Your task to perform on an android device: What is the recent news? Image 0: 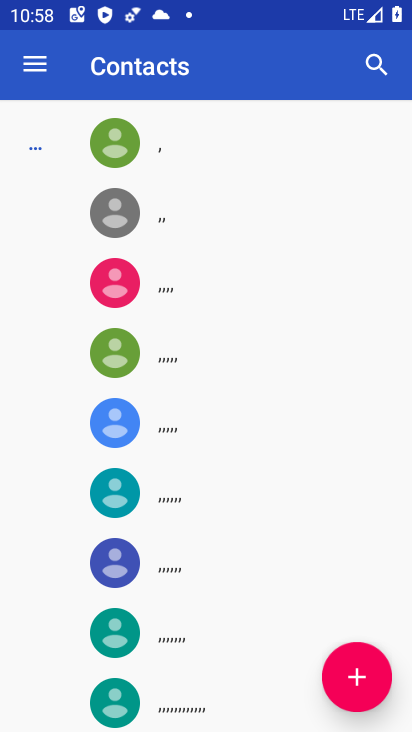
Step 0: press home button
Your task to perform on an android device: What is the recent news? Image 1: 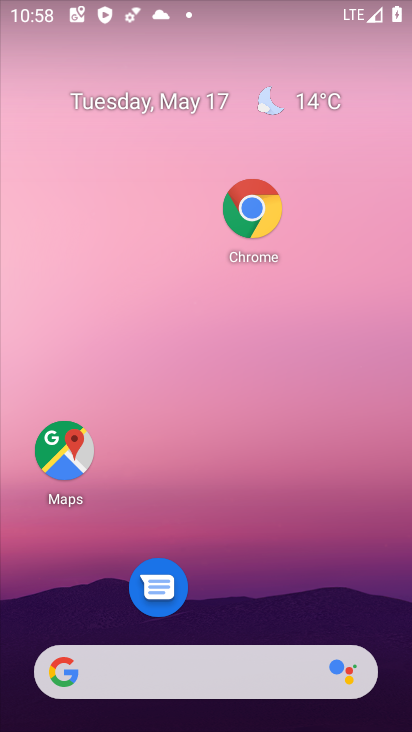
Step 1: click (233, 682)
Your task to perform on an android device: What is the recent news? Image 2: 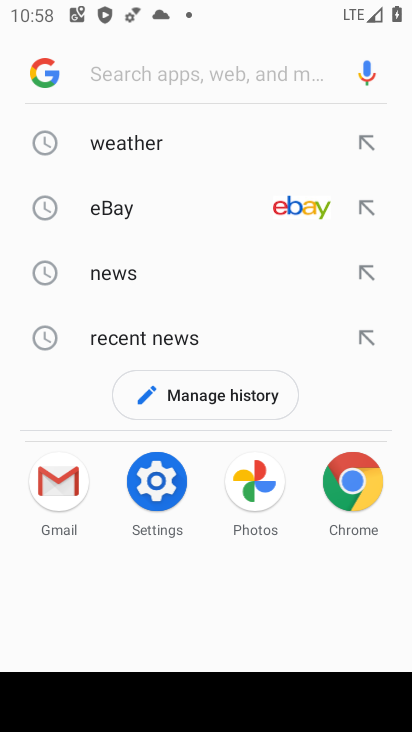
Step 2: click (167, 339)
Your task to perform on an android device: What is the recent news? Image 3: 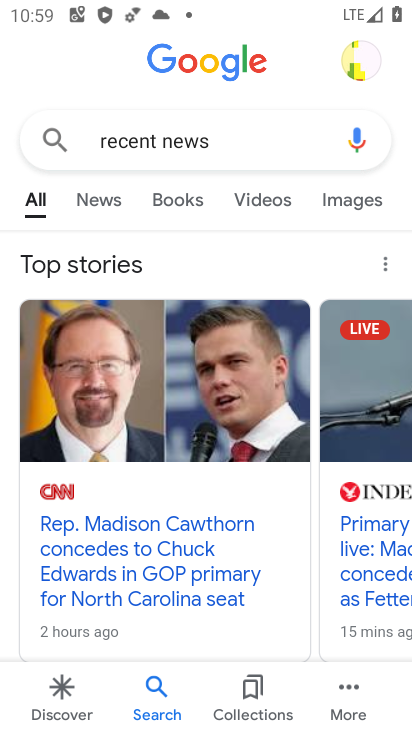
Step 3: click (119, 198)
Your task to perform on an android device: What is the recent news? Image 4: 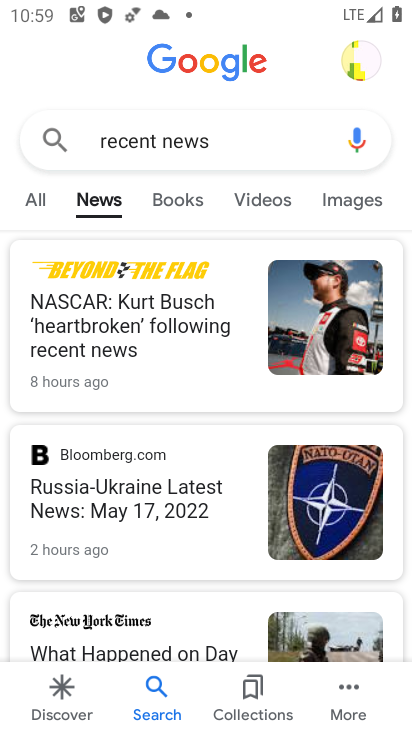
Step 4: task complete